Your task to perform on an android device: What's the weather going to be this weekend? Image 0: 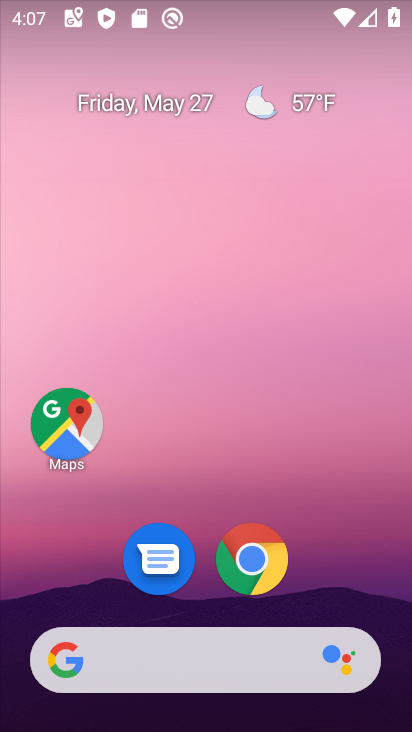
Step 0: drag from (350, 590) to (284, 73)
Your task to perform on an android device: What's the weather going to be this weekend? Image 1: 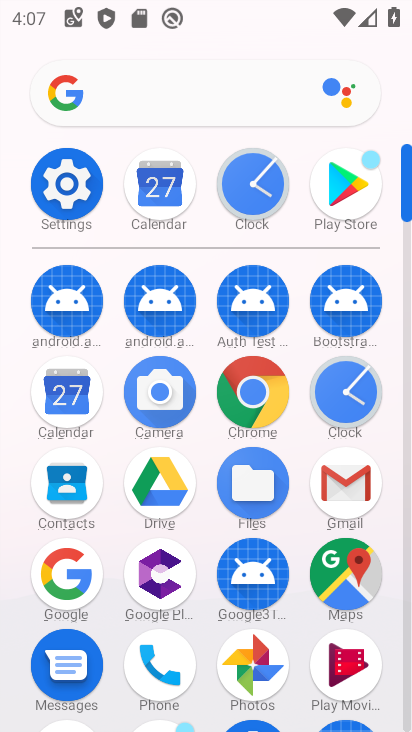
Step 1: click (74, 408)
Your task to perform on an android device: What's the weather going to be this weekend? Image 2: 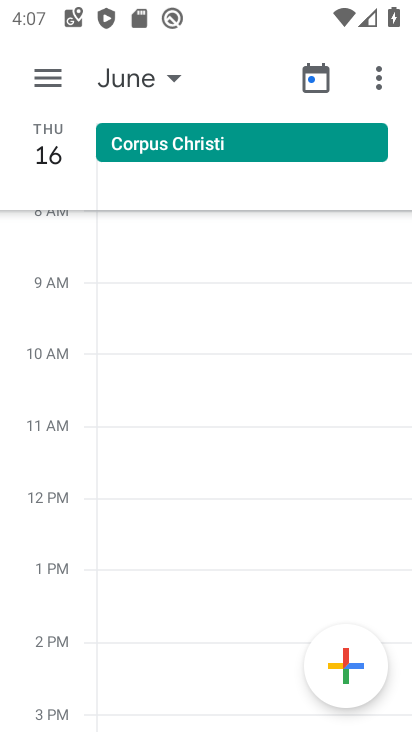
Step 2: task complete